Your task to perform on an android device: Open internet settings Image 0: 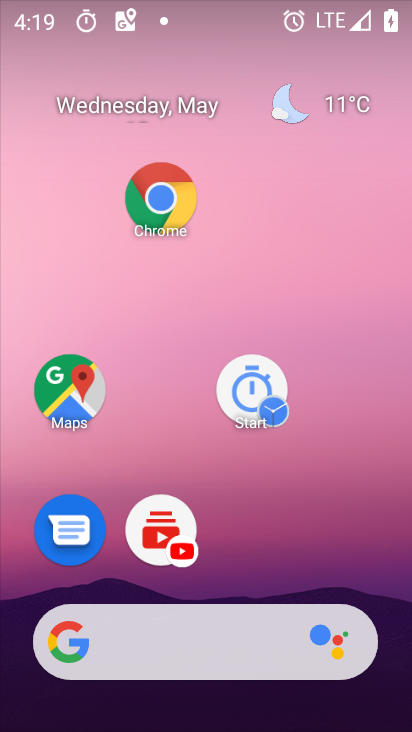
Step 0: drag from (299, 683) to (205, 235)
Your task to perform on an android device: Open internet settings Image 1: 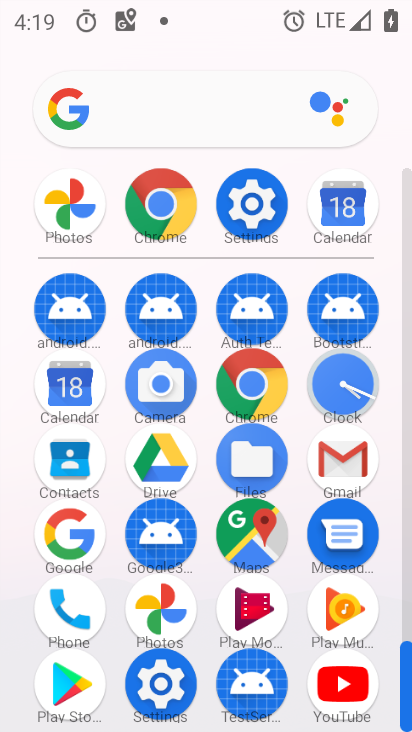
Step 1: click (235, 202)
Your task to perform on an android device: Open internet settings Image 2: 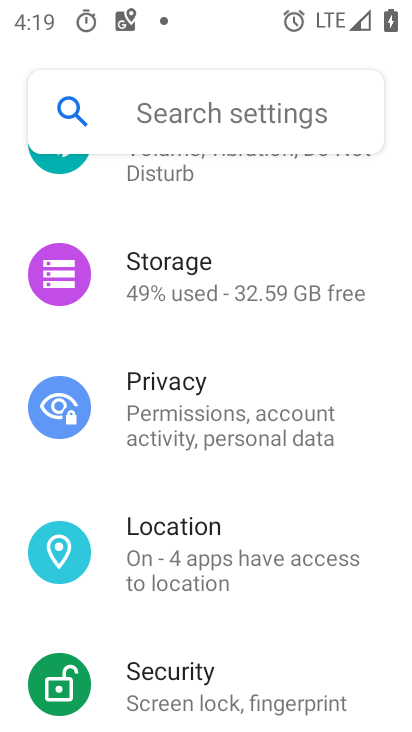
Step 2: drag from (212, 245) to (217, 99)
Your task to perform on an android device: Open internet settings Image 3: 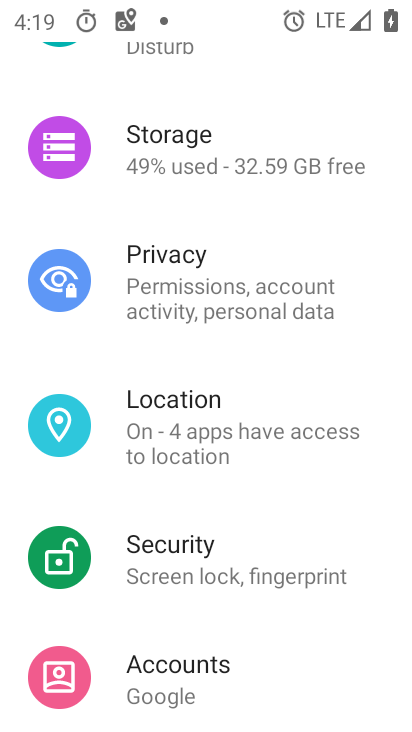
Step 3: drag from (218, 218) to (237, 457)
Your task to perform on an android device: Open internet settings Image 4: 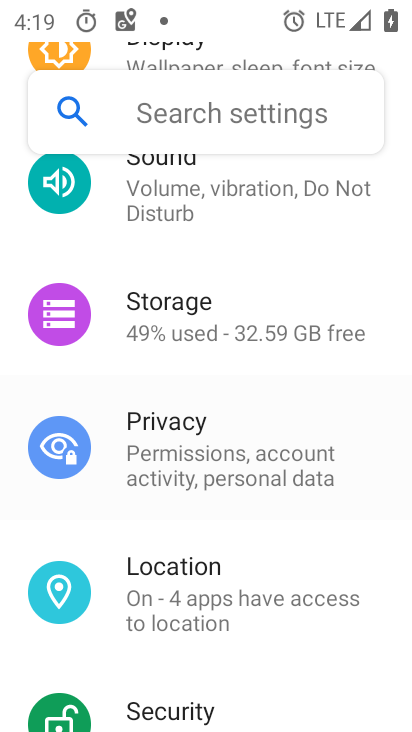
Step 4: drag from (205, 268) to (210, 618)
Your task to perform on an android device: Open internet settings Image 5: 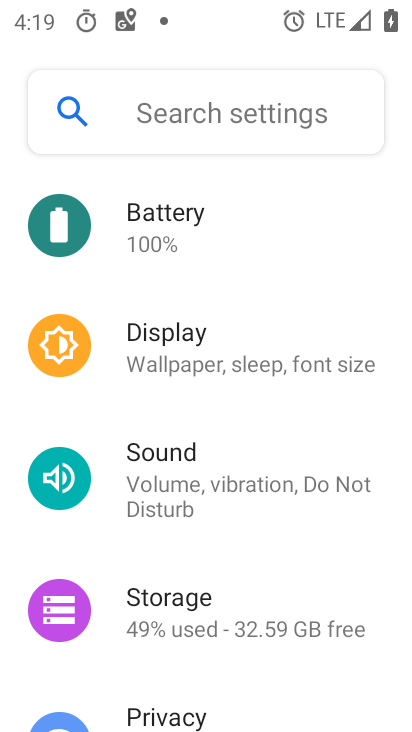
Step 5: drag from (198, 329) to (229, 655)
Your task to perform on an android device: Open internet settings Image 6: 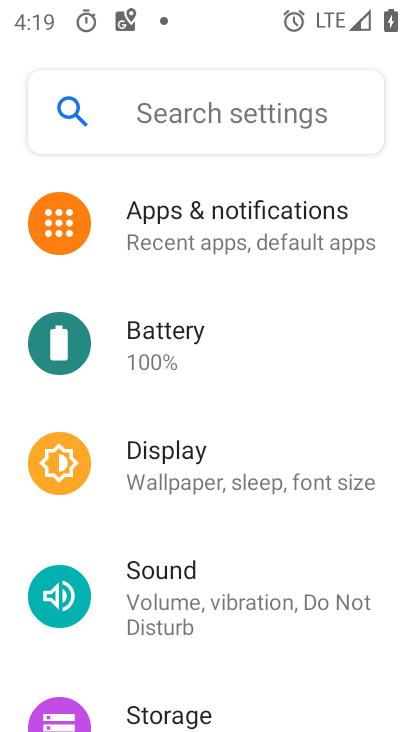
Step 6: drag from (214, 291) to (257, 714)
Your task to perform on an android device: Open internet settings Image 7: 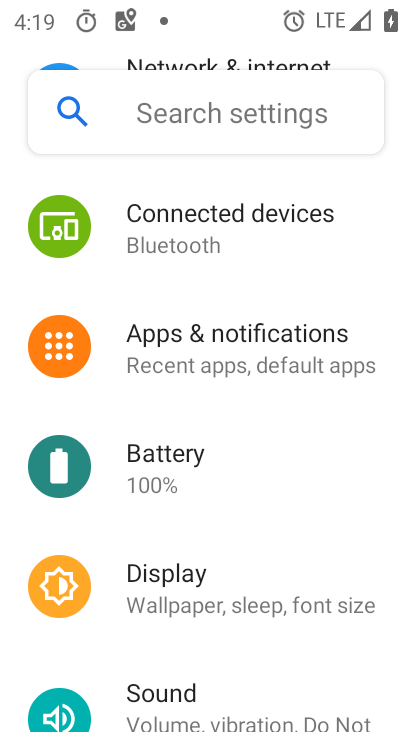
Step 7: drag from (216, 243) to (279, 546)
Your task to perform on an android device: Open internet settings Image 8: 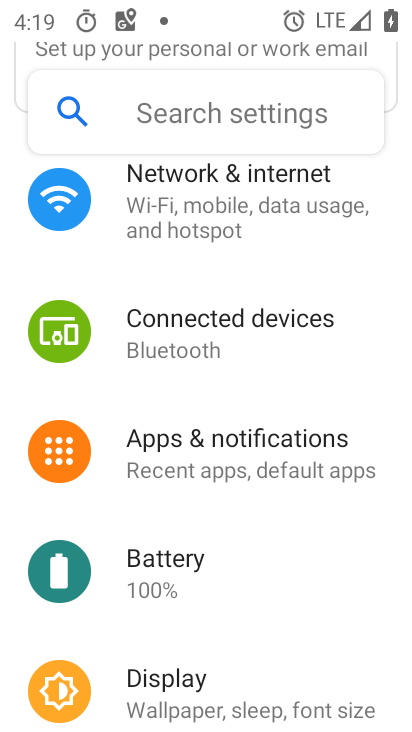
Step 8: click (229, 198)
Your task to perform on an android device: Open internet settings Image 9: 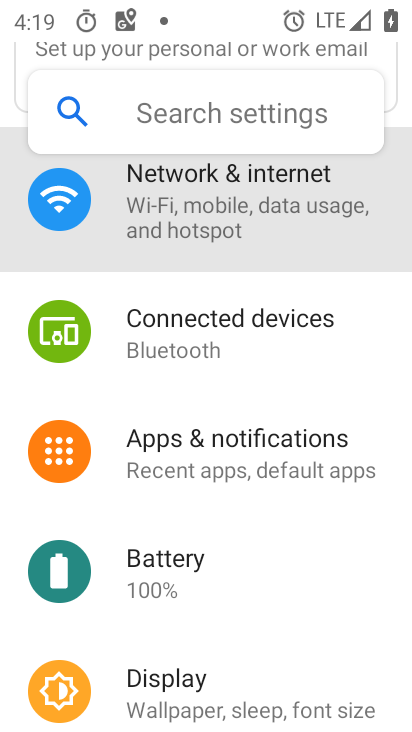
Step 9: click (238, 211)
Your task to perform on an android device: Open internet settings Image 10: 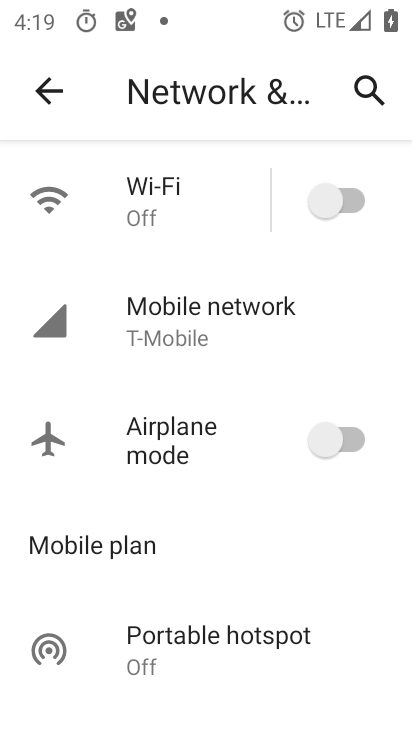
Step 10: click (156, 313)
Your task to perform on an android device: Open internet settings Image 11: 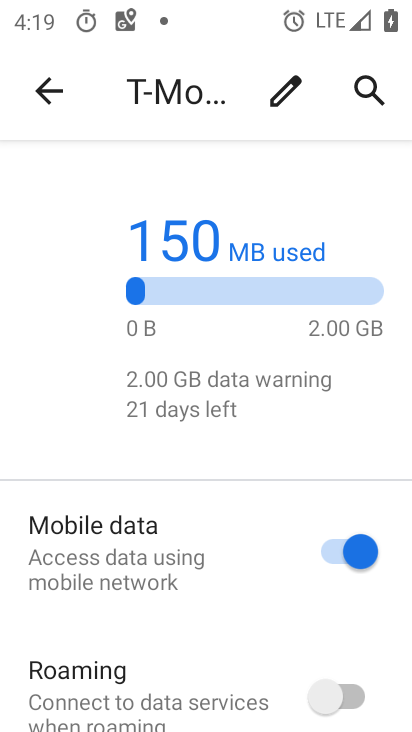
Step 11: task complete